Your task to perform on an android device: turn on priority inbox in the gmail app Image 0: 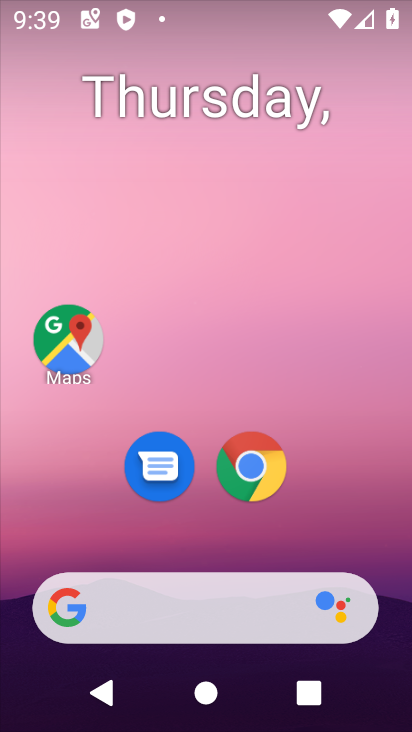
Step 0: drag from (348, 519) to (356, 129)
Your task to perform on an android device: turn on priority inbox in the gmail app Image 1: 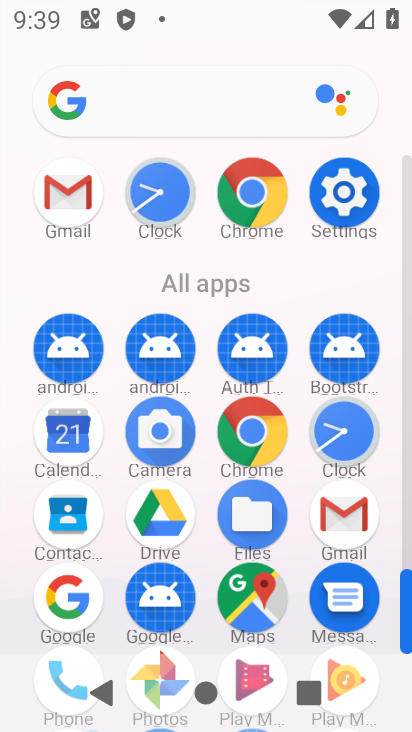
Step 1: click (346, 535)
Your task to perform on an android device: turn on priority inbox in the gmail app Image 2: 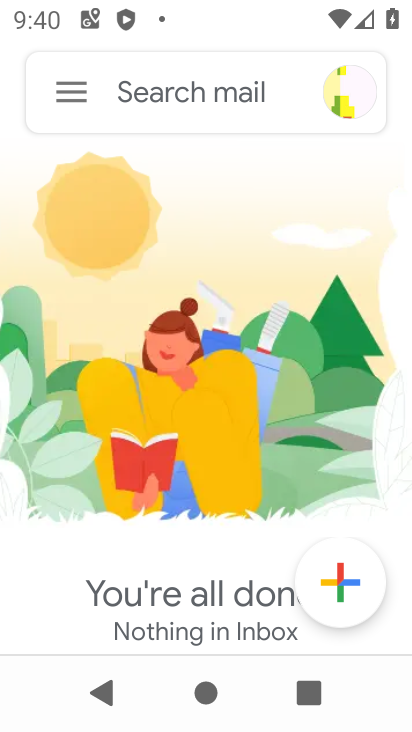
Step 2: click (73, 89)
Your task to perform on an android device: turn on priority inbox in the gmail app Image 3: 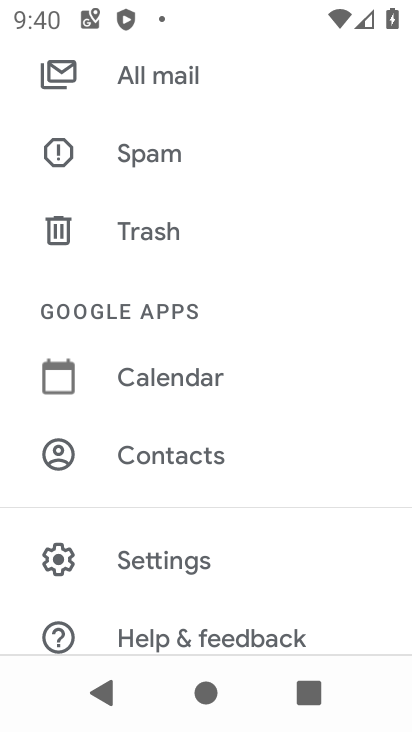
Step 3: click (200, 555)
Your task to perform on an android device: turn on priority inbox in the gmail app Image 4: 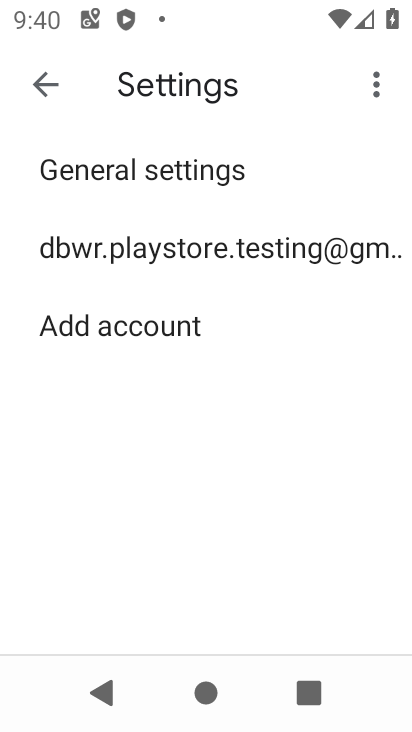
Step 4: click (118, 250)
Your task to perform on an android device: turn on priority inbox in the gmail app Image 5: 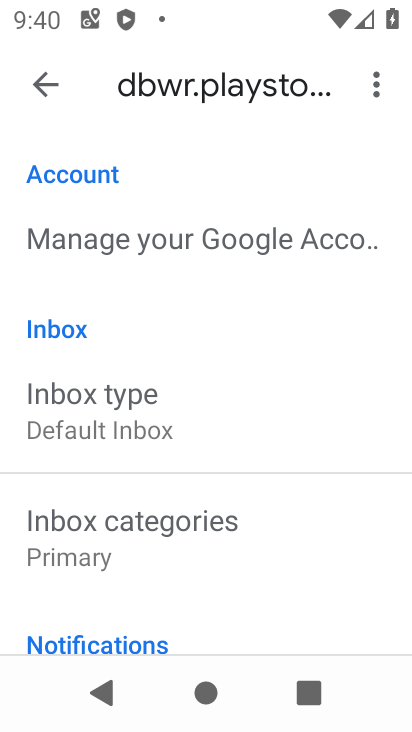
Step 5: drag from (303, 548) to (333, 415)
Your task to perform on an android device: turn on priority inbox in the gmail app Image 6: 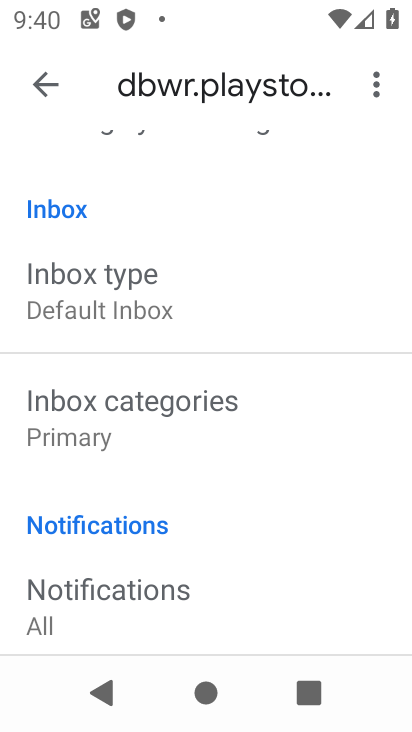
Step 6: click (137, 271)
Your task to perform on an android device: turn on priority inbox in the gmail app Image 7: 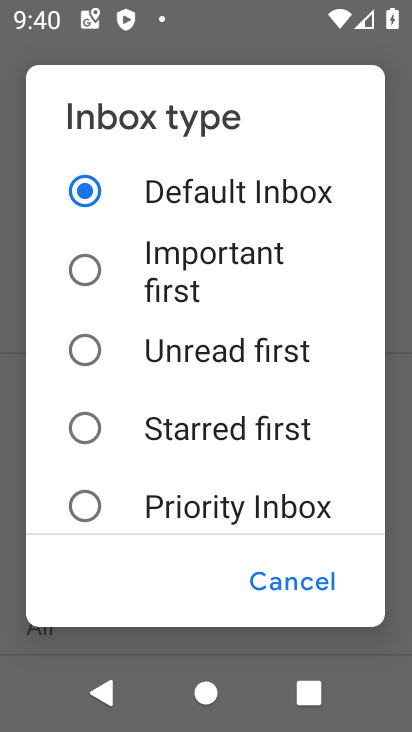
Step 7: click (91, 498)
Your task to perform on an android device: turn on priority inbox in the gmail app Image 8: 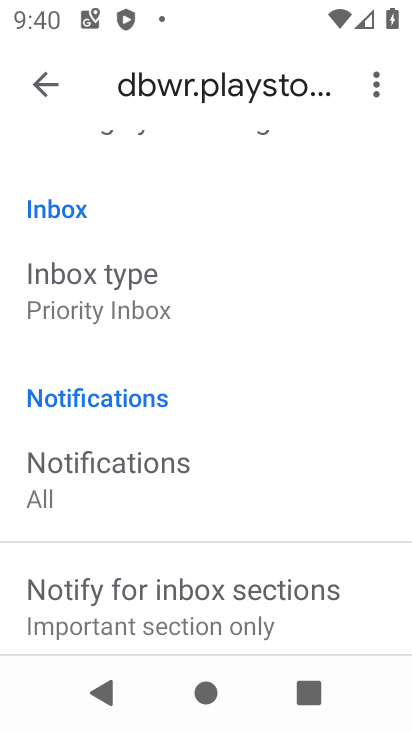
Step 8: task complete